Your task to perform on an android device: Open settings Image 0: 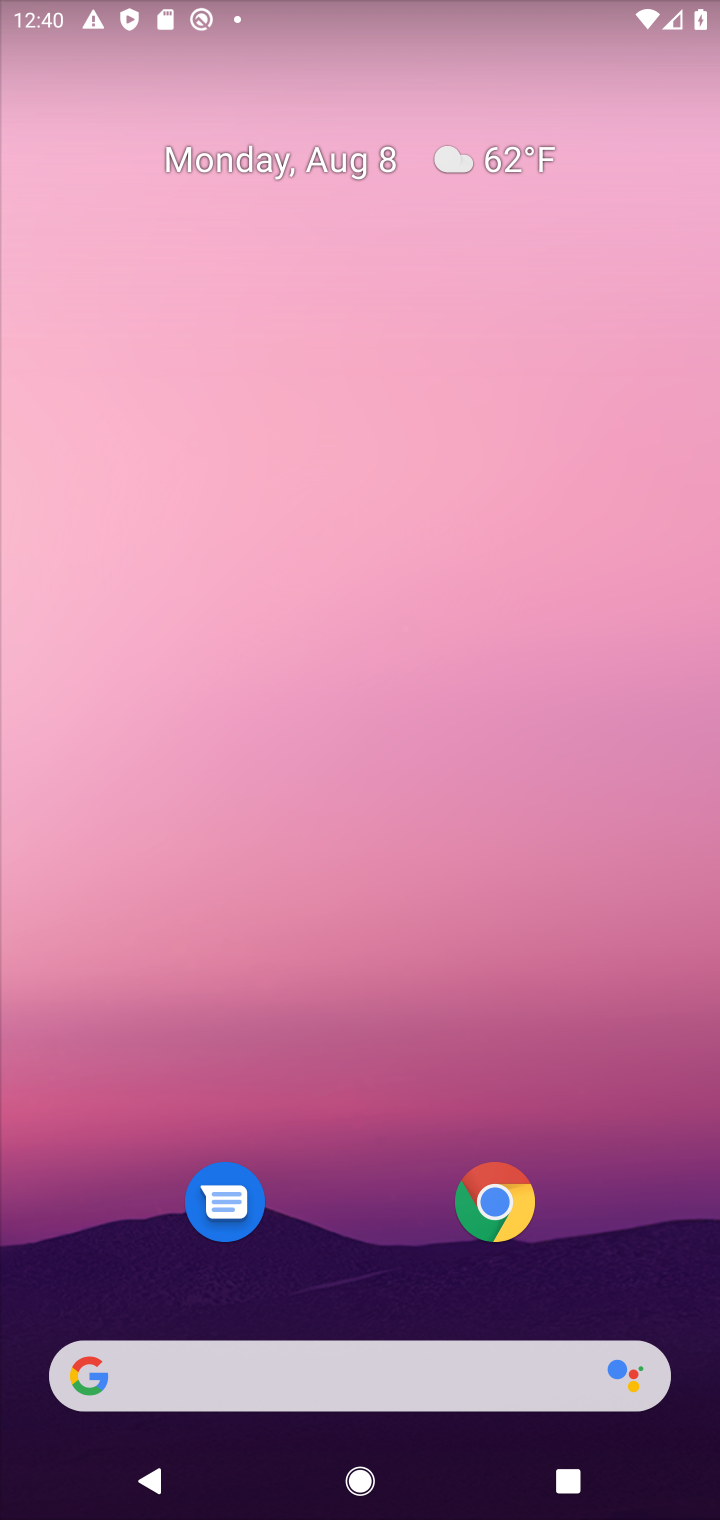
Step 0: drag from (362, 1084) to (485, 10)
Your task to perform on an android device: Open settings Image 1: 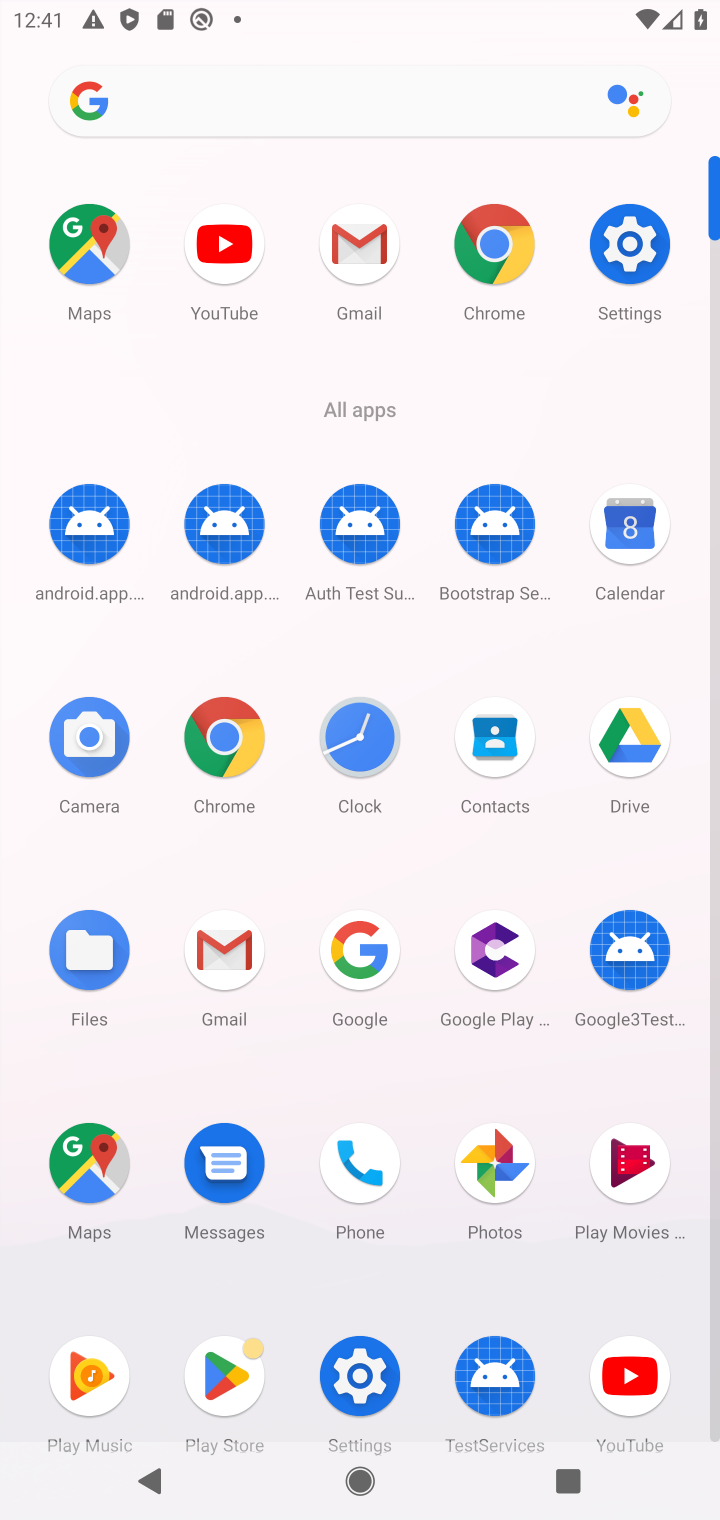
Step 1: click (644, 233)
Your task to perform on an android device: Open settings Image 2: 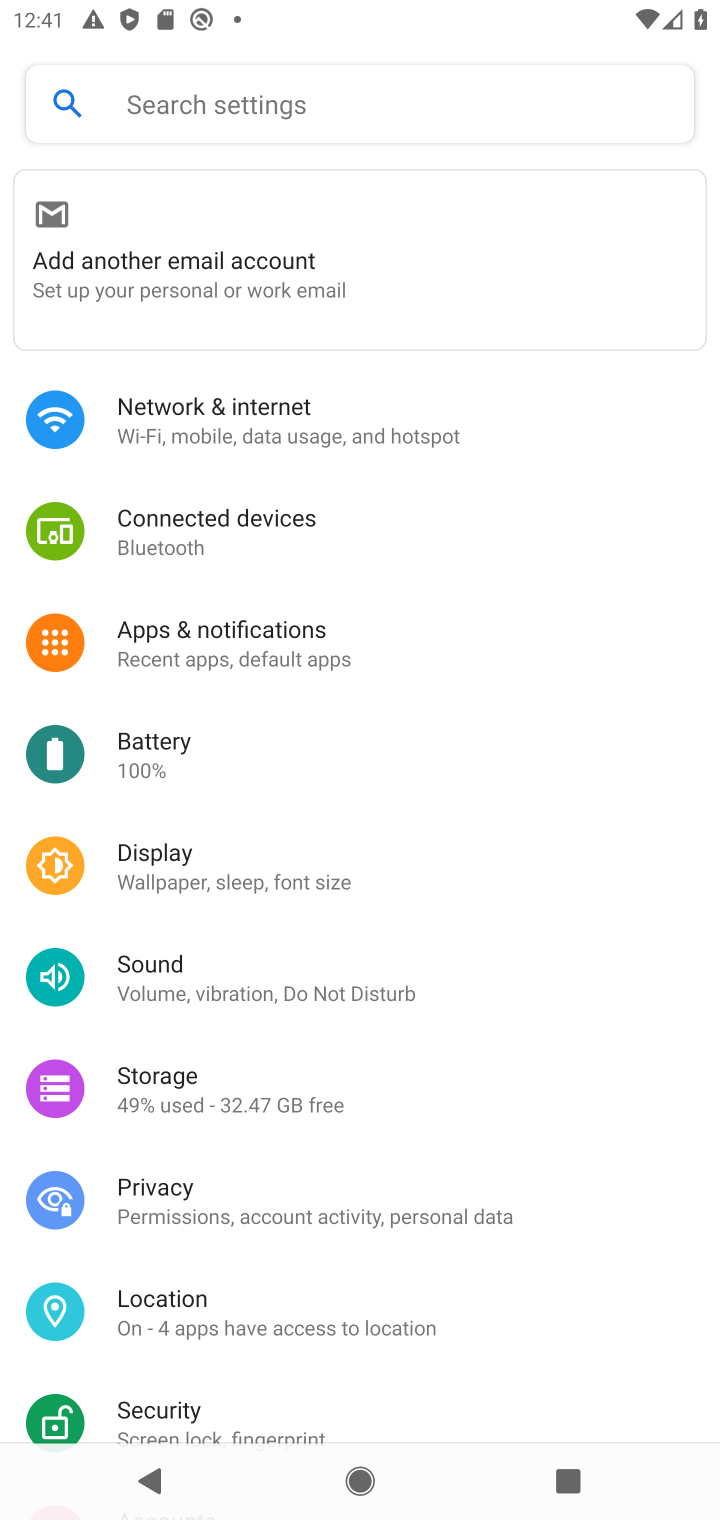
Step 2: task complete